Your task to perform on an android device: clear history in the chrome app Image 0: 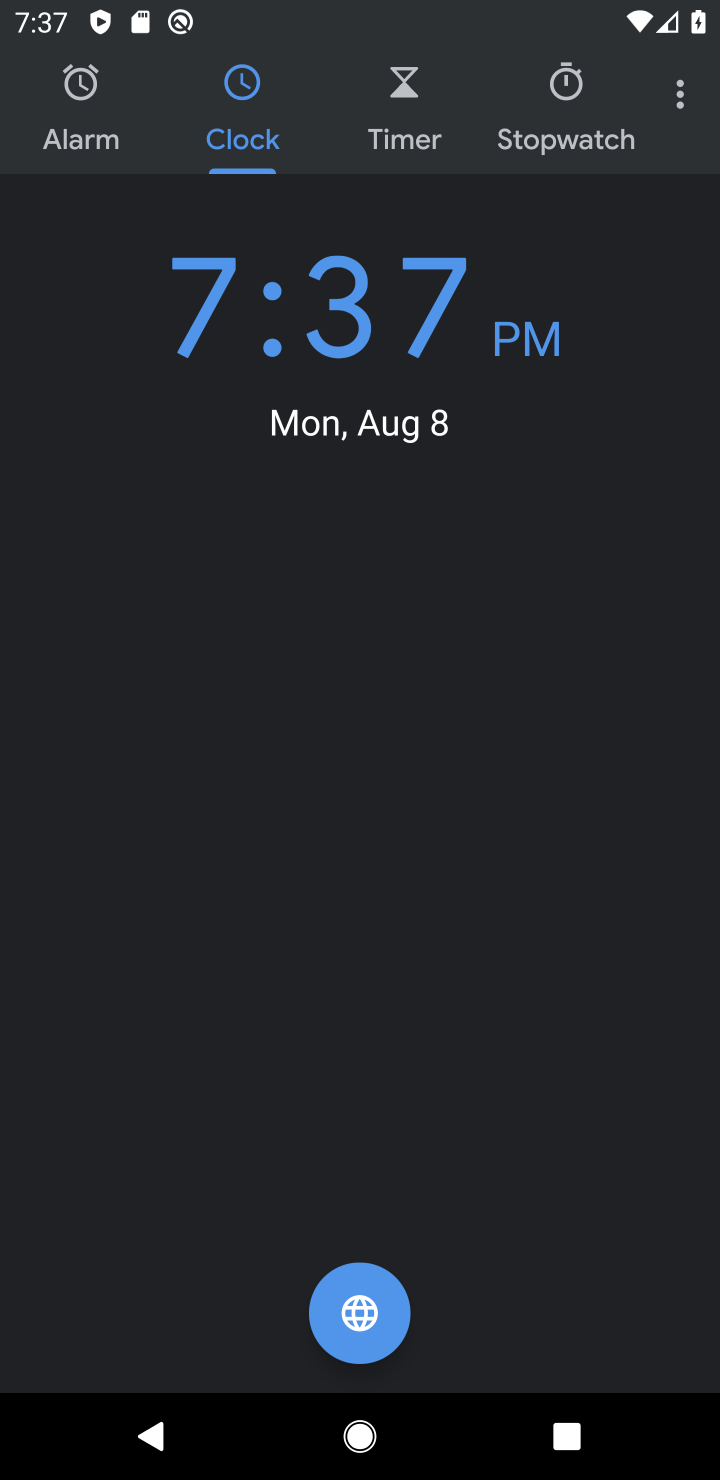
Step 0: press home button
Your task to perform on an android device: clear history in the chrome app Image 1: 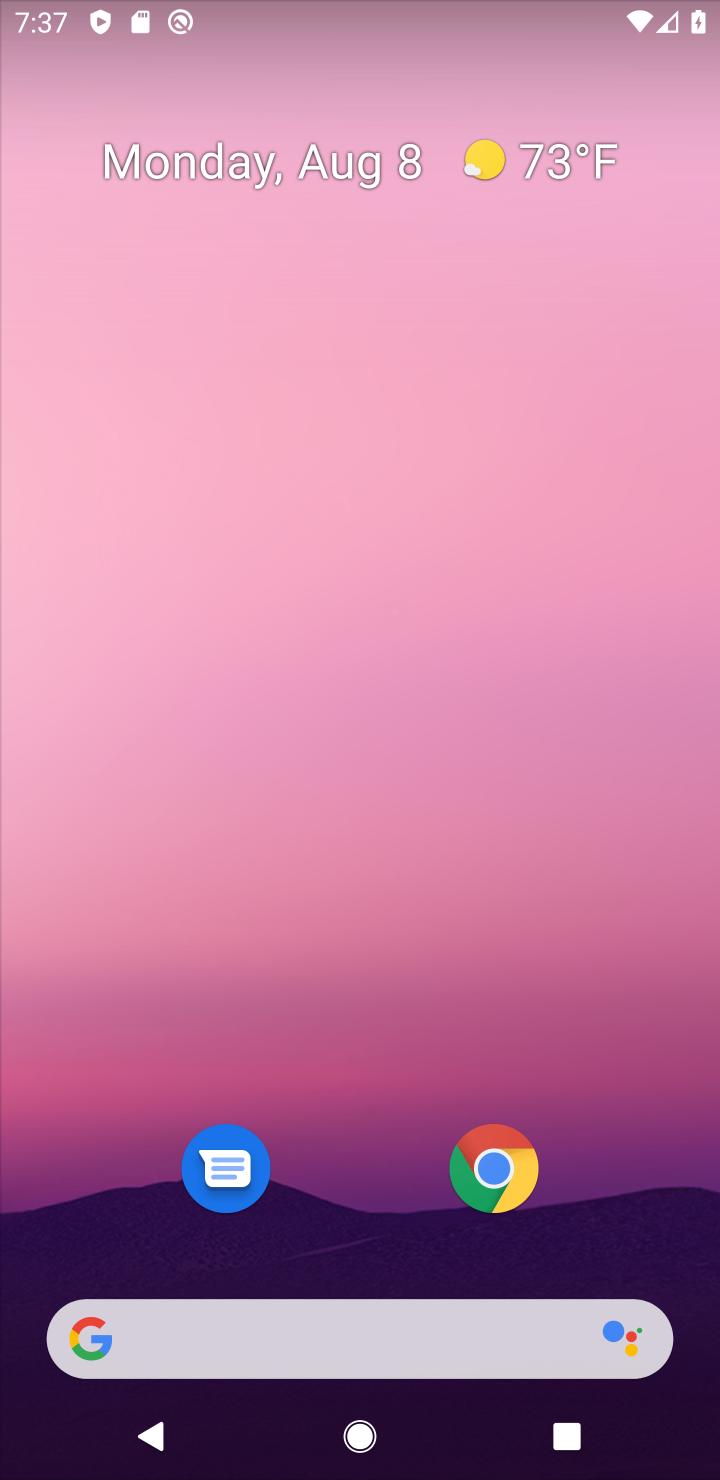
Step 1: click (496, 1172)
Your task to perform on an android device: clear history in the chrome app Image 2: 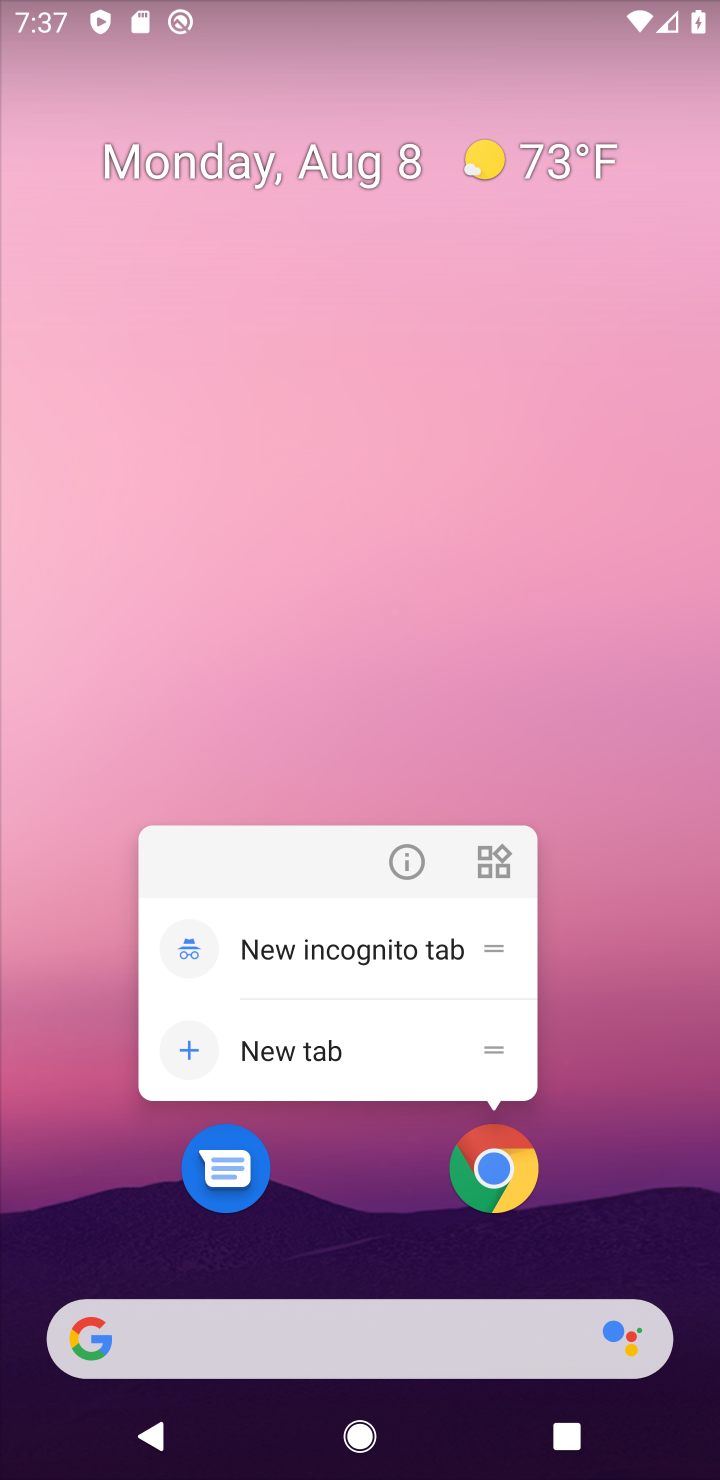
Step 2: click (496, 1183)
Your task to perform on an android device: clear history in the chrome app Image 3: 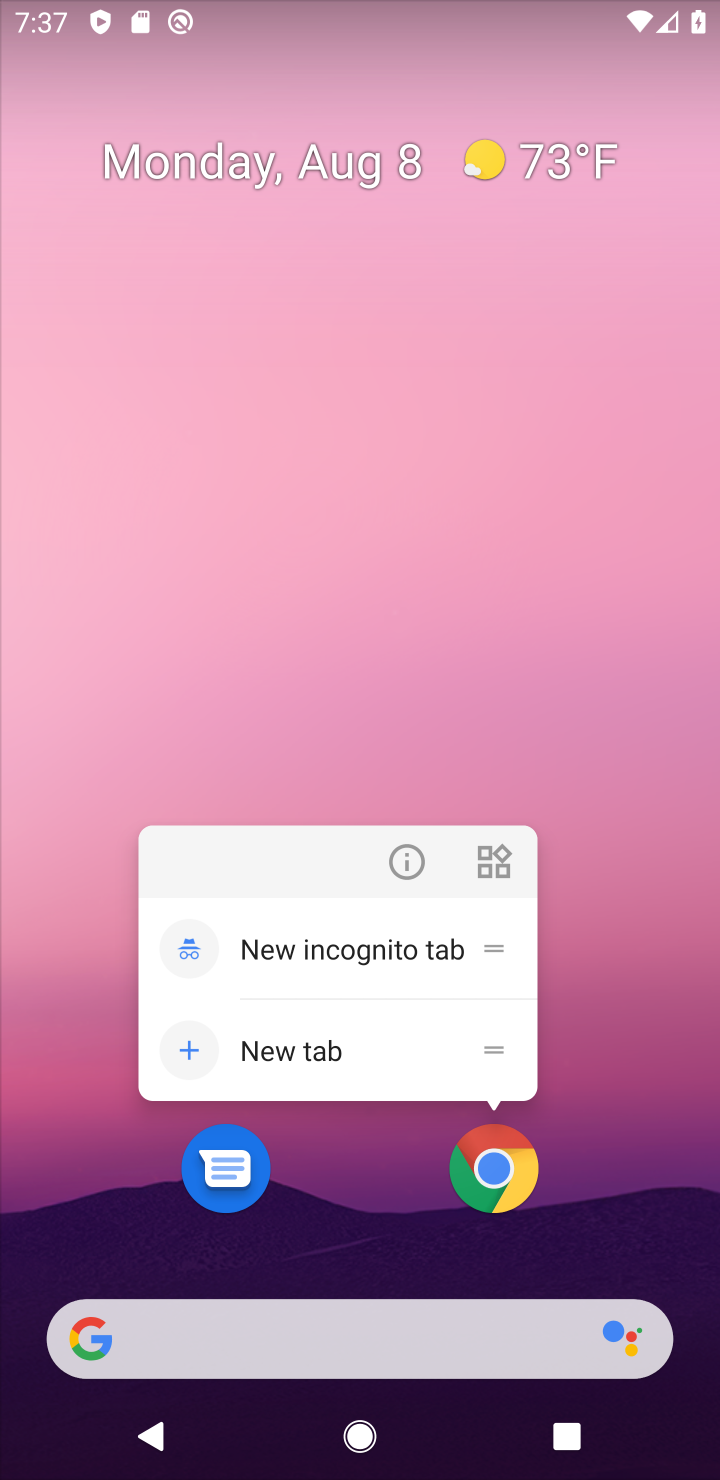
Step 3: click (496, 1183)
Your task to perform on an android device: clear history in the chrome app Image 4: 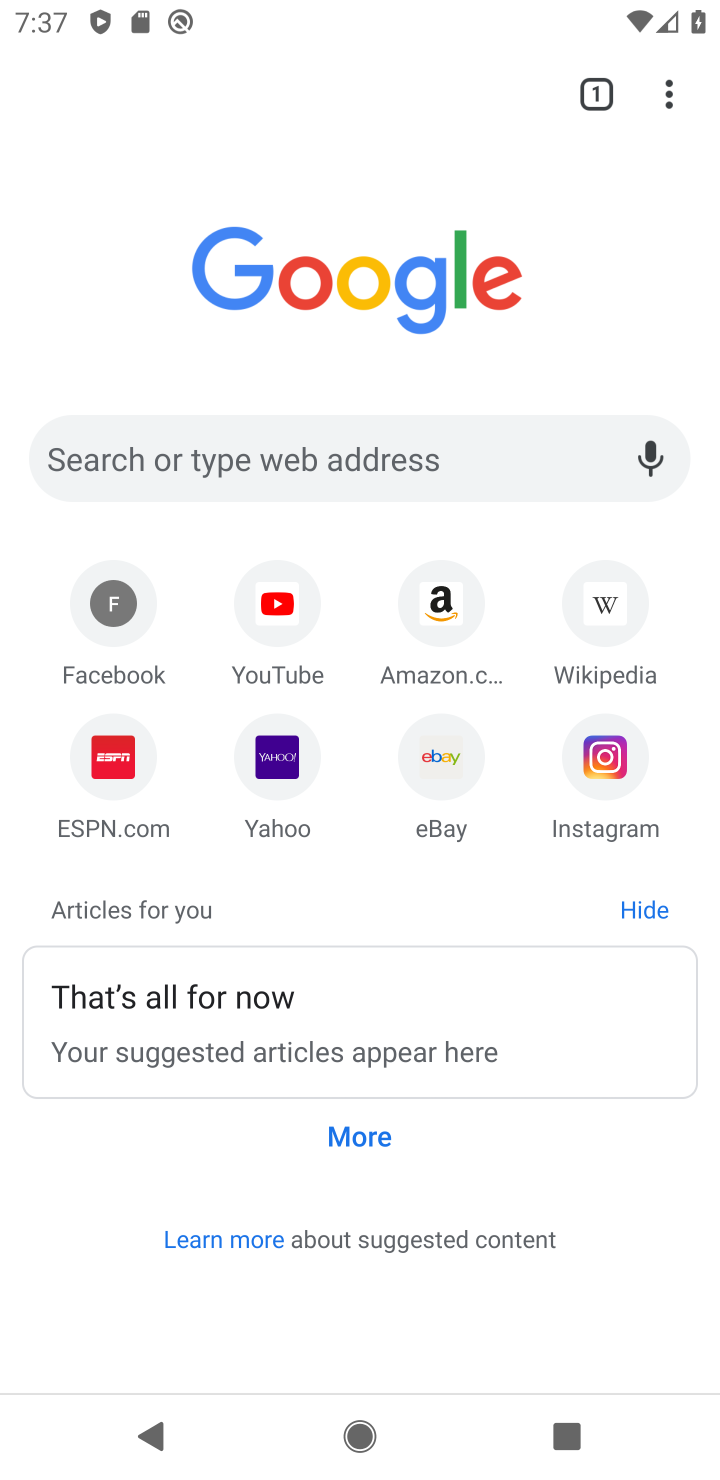
Step 4: task complete